Your task to perform on an android device: Show me popular games on the Play Store Image 0: 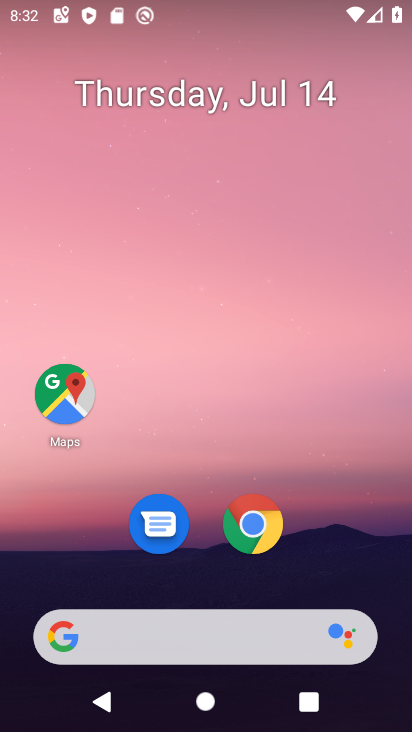
Step 0: drag from (321, 552) to (305, 3)
Your task to perform on an android device: Show me popular games on the Play Store Image 1: 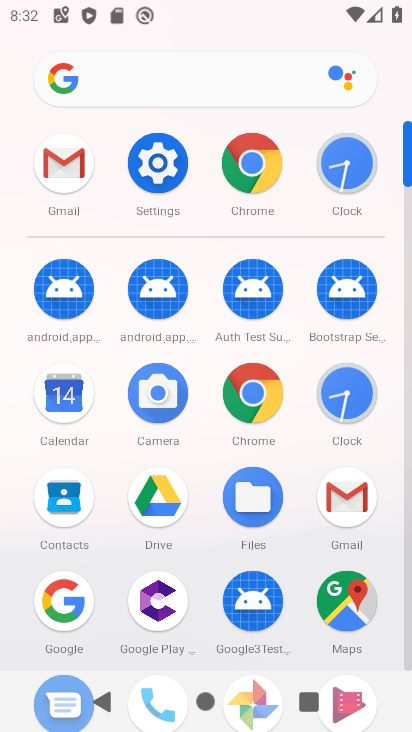
Step 1: drag from (184, 460) to (219, 127)
Your task to perform on an android device: Show me popular games on the Play Store Image 2: 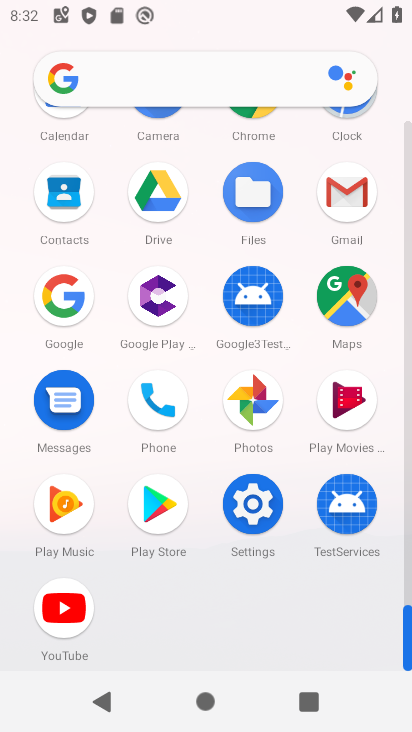
Step 2: click (159, 497)
Your task to perform on an android device: Show me popular games on the Play Store Image 3: 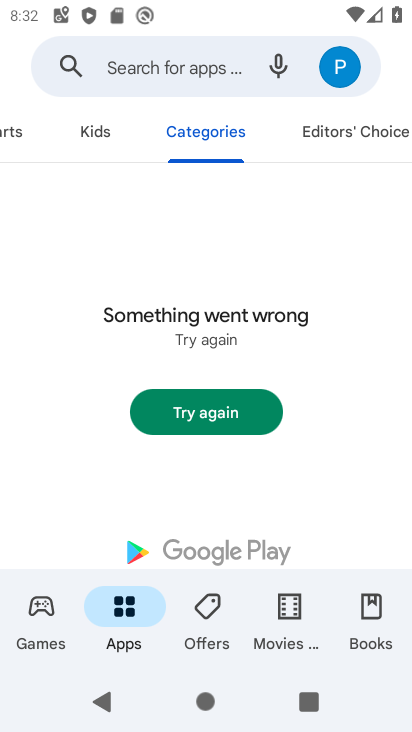
Step 3: click (43, 608)
Your task to perform on an android device: Show me popular games on the Play Store Image 4: 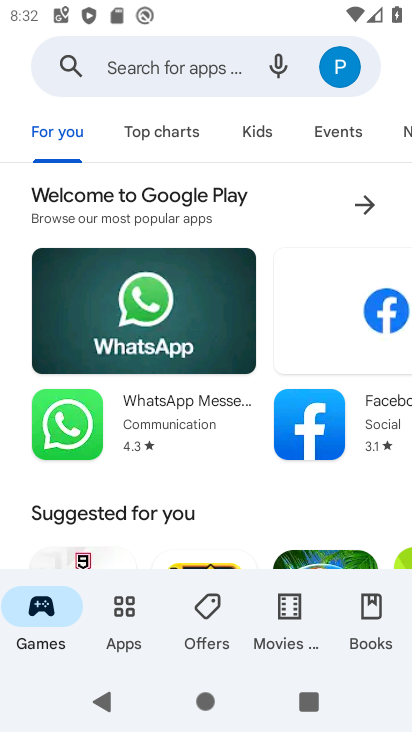
Step 4: drag from (232, 449) to (276, 50)
Your task to perform on an android device: Show me popular games on the Play Store Image 5: 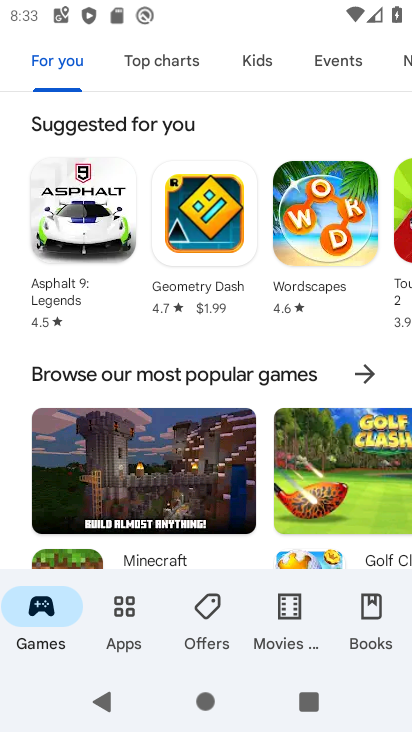
Step 5: click (368, 371)
Your task to perform on an android device: Show me popular games on the Play Store Image 6: 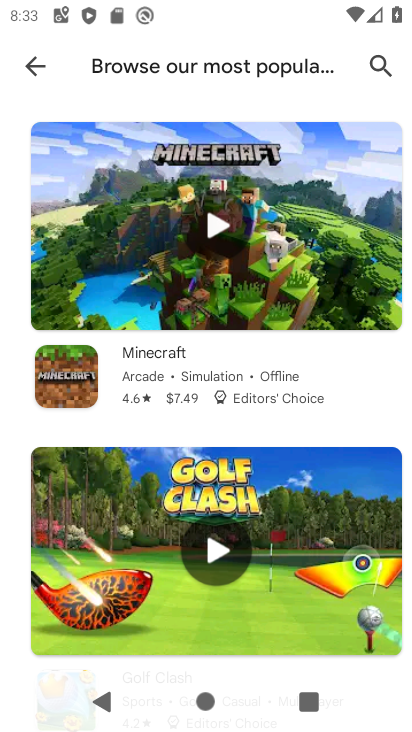
Step 6: task complete